Your task to perform on an android device: turn on priority inbox in the gmail app Image 0: 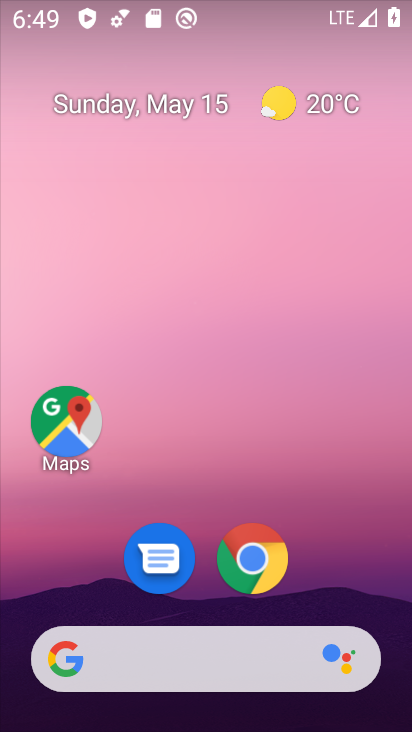
Step 0: drag from (279, 477) to (169, 55)
Your task to perform on an android device: turn on priority inbox in the gmail app Image 1: 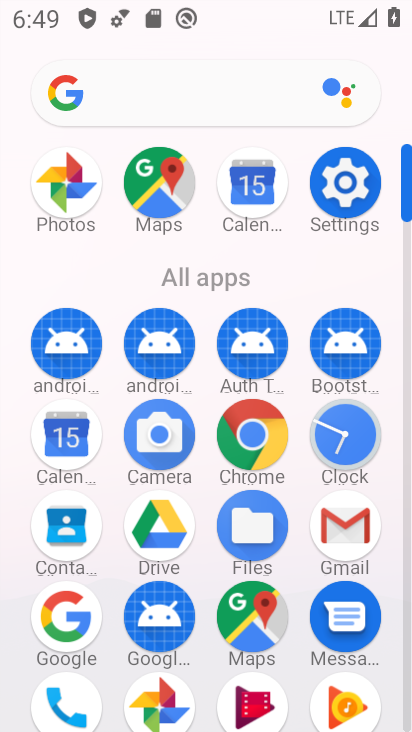
Step 1: click (349, 536)
Your task to perform on an android device: turn on priority inbox in the gmail app Image 2: 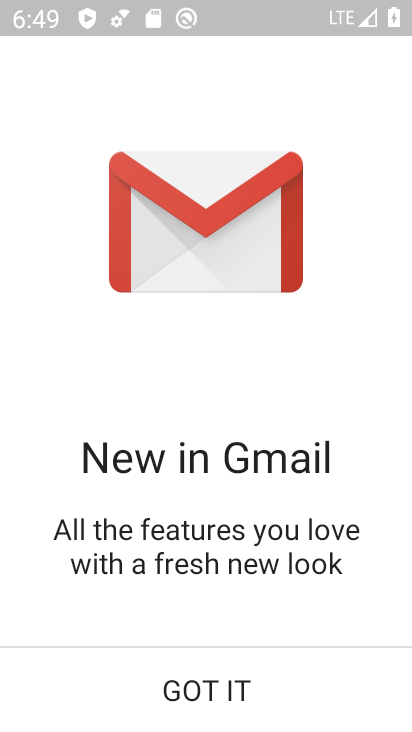
Step 2: click (224, 694)
Your task to perform on an android device: turn on priority inbox in the gmail app Image 3: 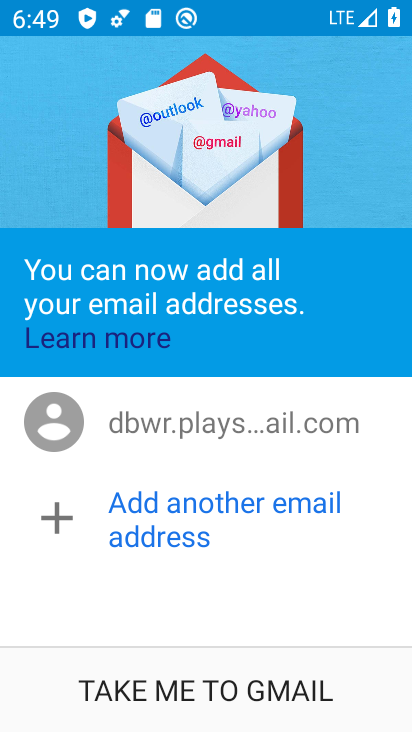
Step 3: click (224, 694)
Your task to perform on an android device: turn on priority inbox in the gmail app Image 4: 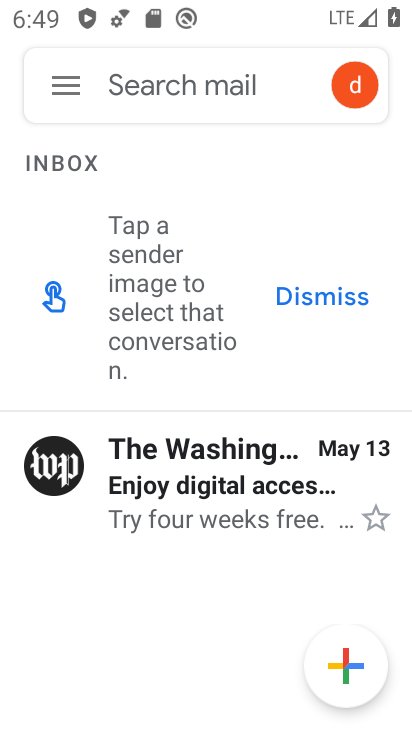
Step 4: click (58, 86)
Your task to perform on an android device: turn on priority inbox in the gmail app Image 5: 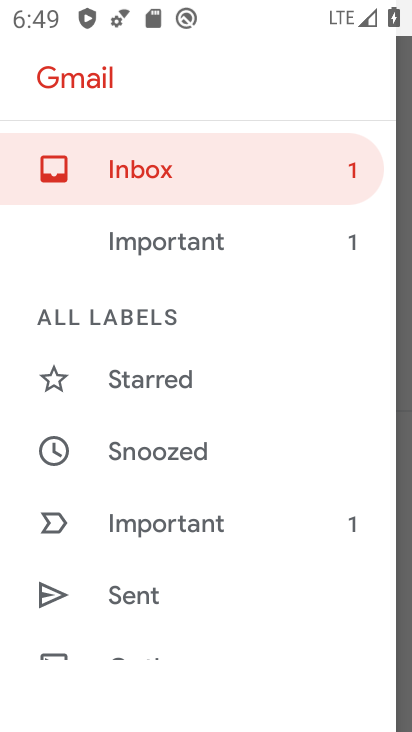
Step 5: drag from (241, 569) to (229, 398)
Your task to perform on an android device: turn on priority inbox in the gmail app Image 6: 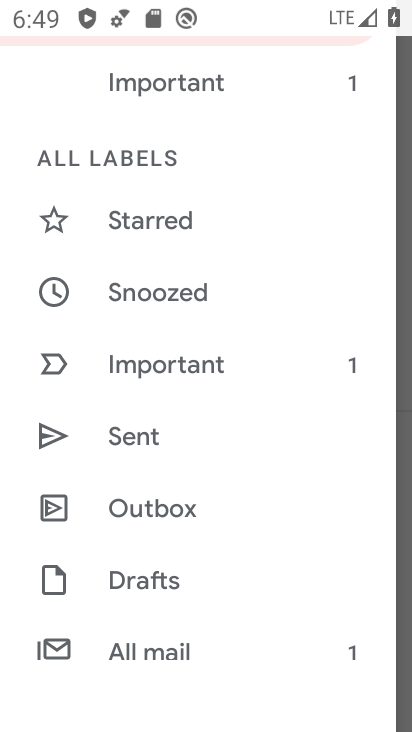
Step 6: drag from (205, 471) to (156, 125)
Your task to perform on an android device: turn on priority inbox in the gmail app Image 7: 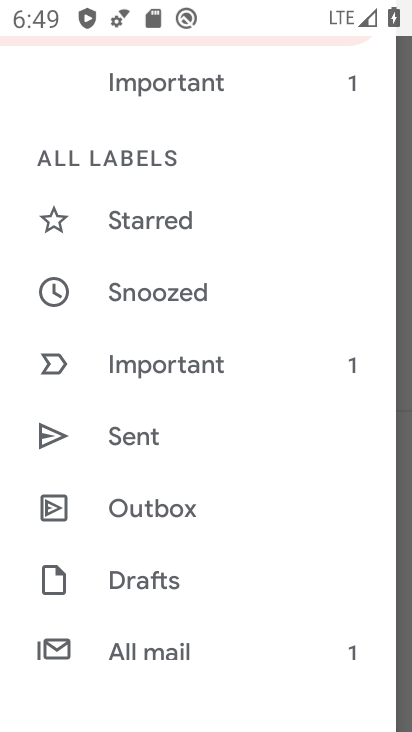
Step 7: drag from (235, 530) to (261, 255)
Your task to perform on an android device: turn on priority inbox in the gmail app Image 8: 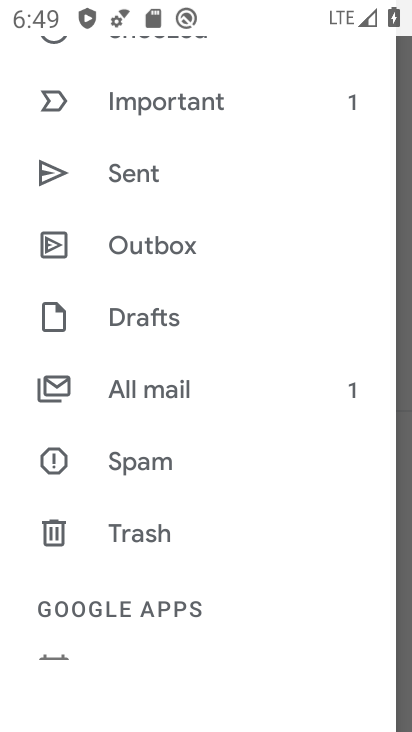
Step 8: drag from (261, 550) to (219, 178)
Your task to perform on an android device: turn on priority inbox in the gmail app Image 9: 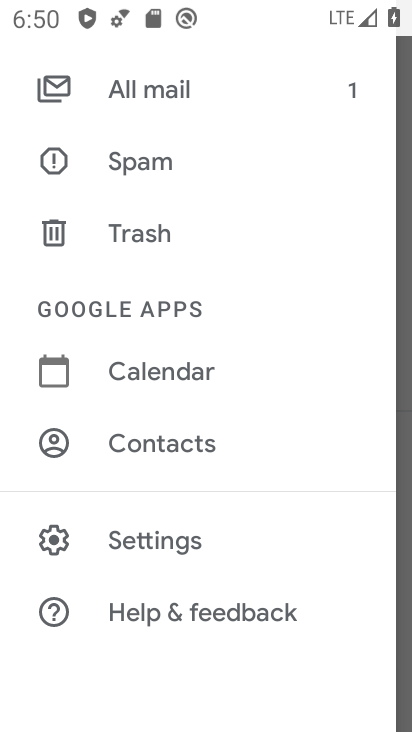
Step 9: click (145, 538)
Your task to perform on an android device: turn on priority inbox in the gmail app Image 10: 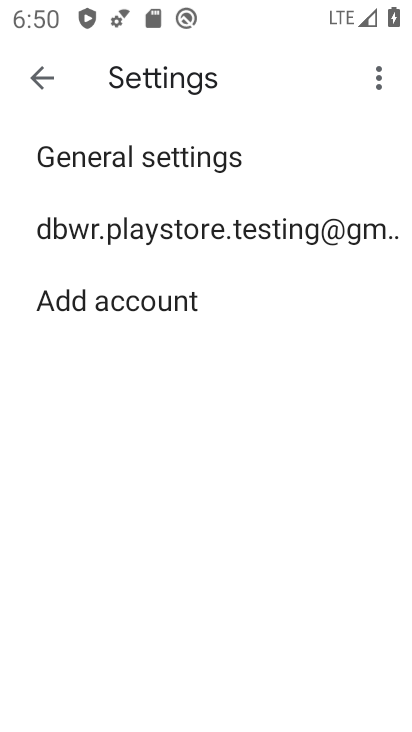
Step 10: click (114, 221)
Your task to perform on an android device: turn on priority inbox in the gmail app Image 11: 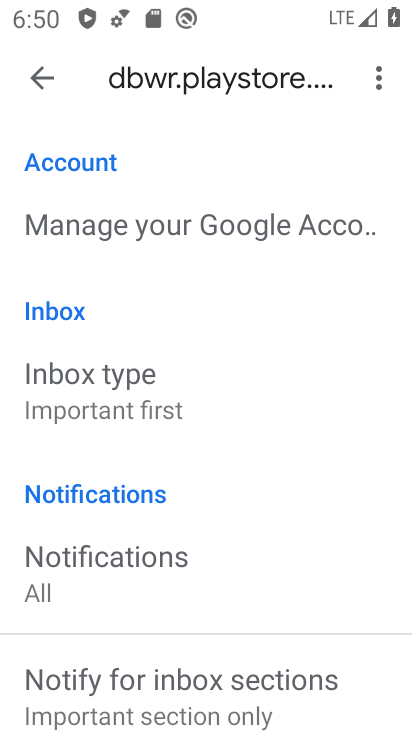
Step 11: click (78, 371)
Your task to perform on an android device: turn on priority inbox in the gmail app Image 12: 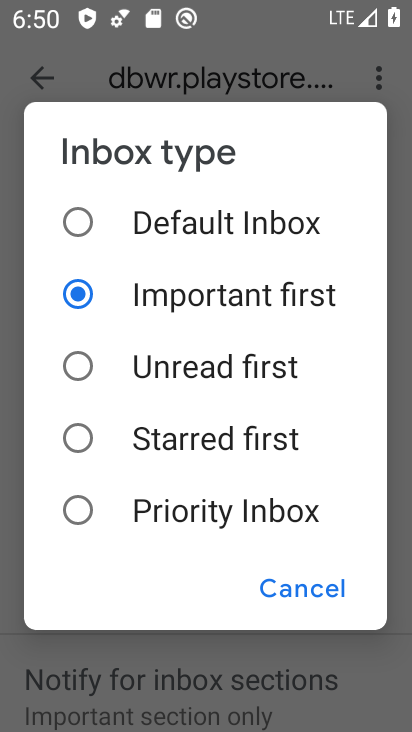
Step 12: click (76, 513)
Your task to perform on an android device: turn on priority inbox in the gmail app Image 13: 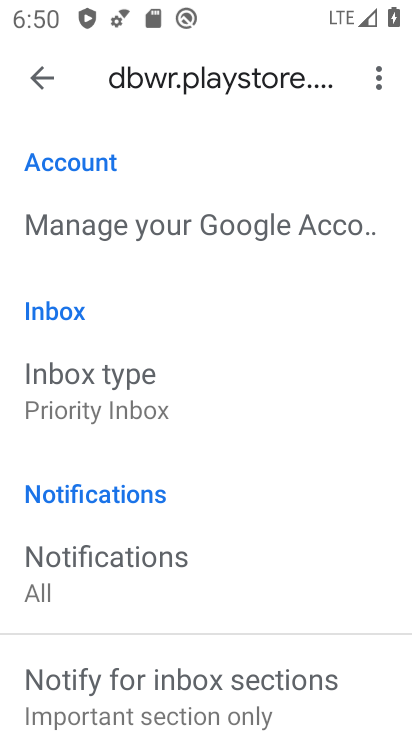
Step 13: task complete